Your task to perform on an android device: toggle location history Image 0: 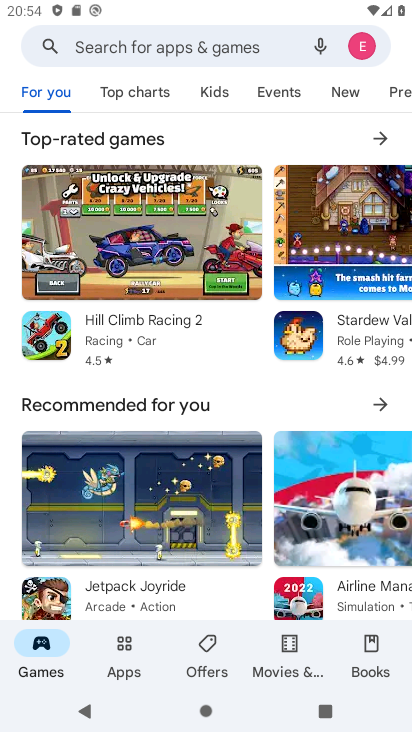
Step 0: press home button
Your task to perform on an android device: toggle location history Image 1: 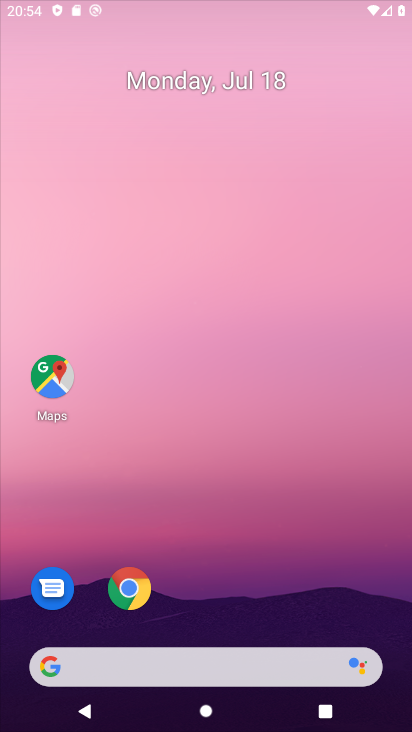
Step 1: click (225, 629)
Your task to perform on an android device: toggle location history Image 2: 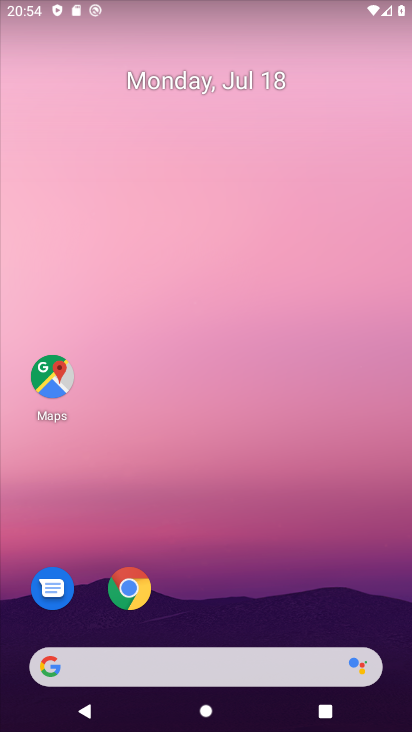
Step 2: click (55, 410)
Your task to perform on an android device: toggle location history Image 3: 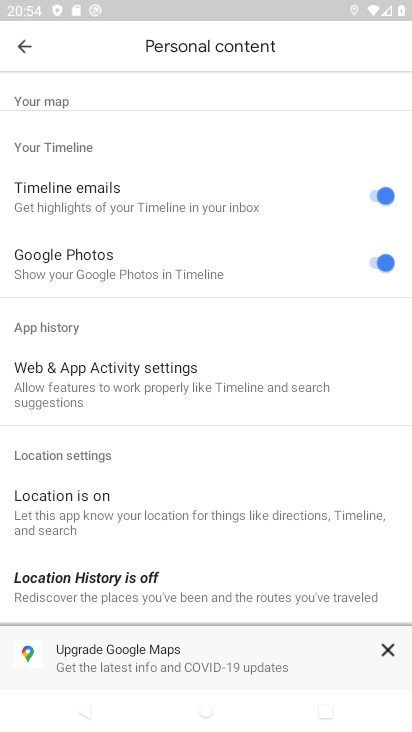
Step 3: click (151, 597)
Your task to perform on an android device: toggle location history Image 4: 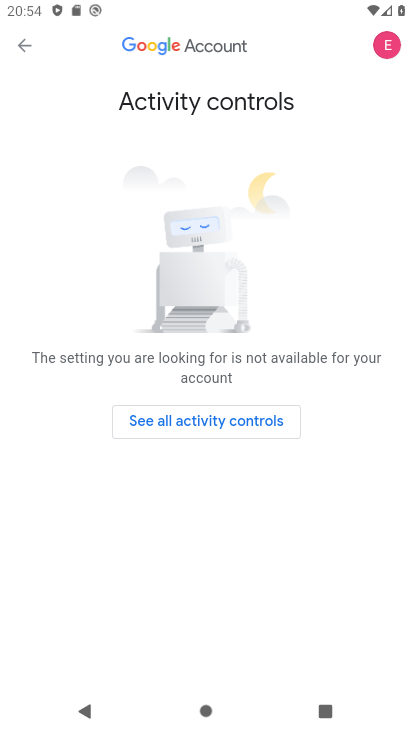
Step 4: click (231, 412)
Your task to perform on an android device: toggle location history Image 5: 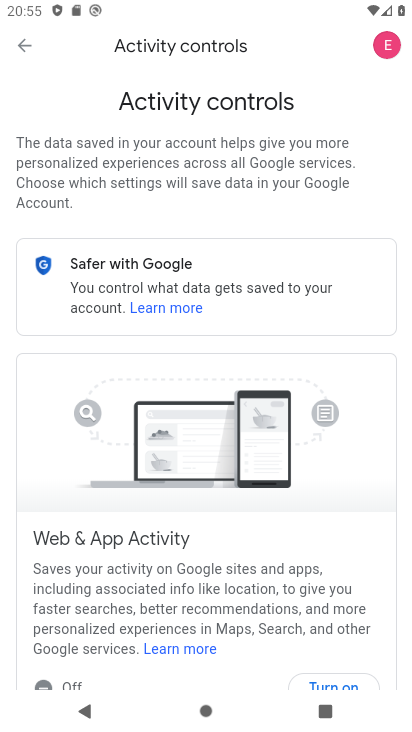
Step 5: drag from (216, 569) to (170, 269)
Your task to perform on an android device: toggle location history Image 6: 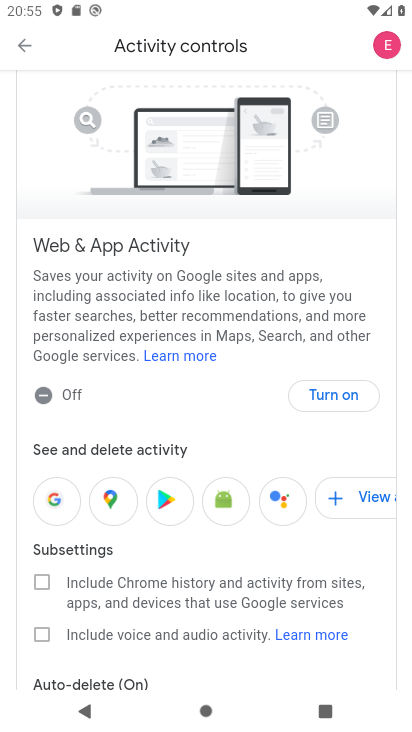
Step 6: click (323, 399)
Your task to perform on an android device: toggle location history Image 7: 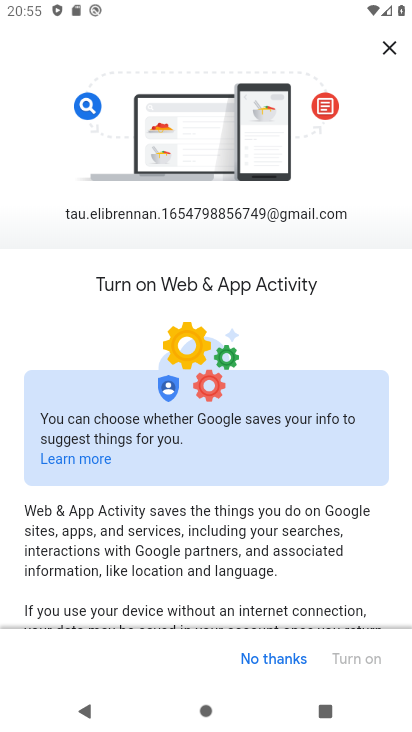
Step 7: drag from (238, 587) to (374, 52)
Your task to perform on an android device: toggle location history Image 8: 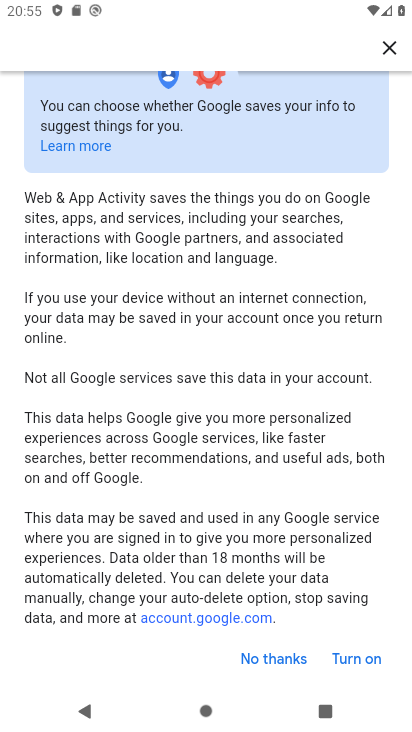
Step 8: click (365, 651)
Your task to perform on an android device: toggle location history Image 9: 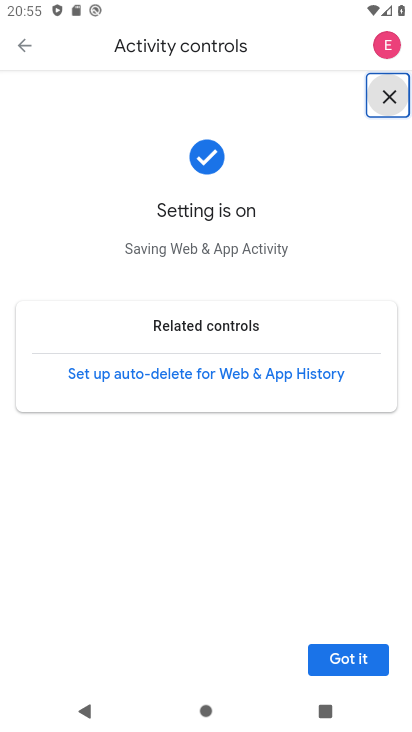
Step 9: click (376, 644)
Your task to perform on an android device: toggle location history Image 10: 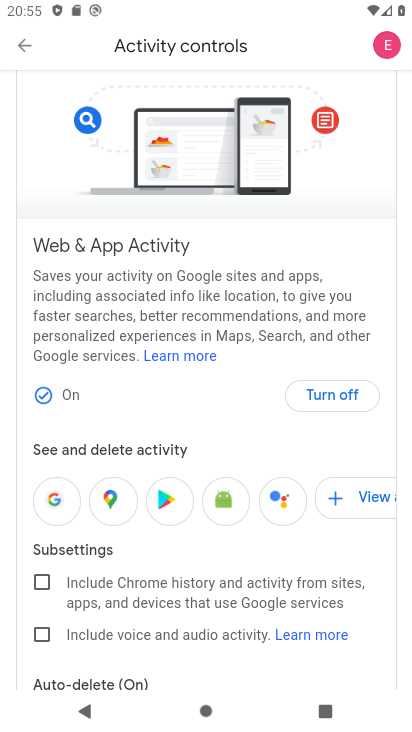
Step 10: task complete